Your task to perform on an android device: set default search engine in the chrome app Image 0: 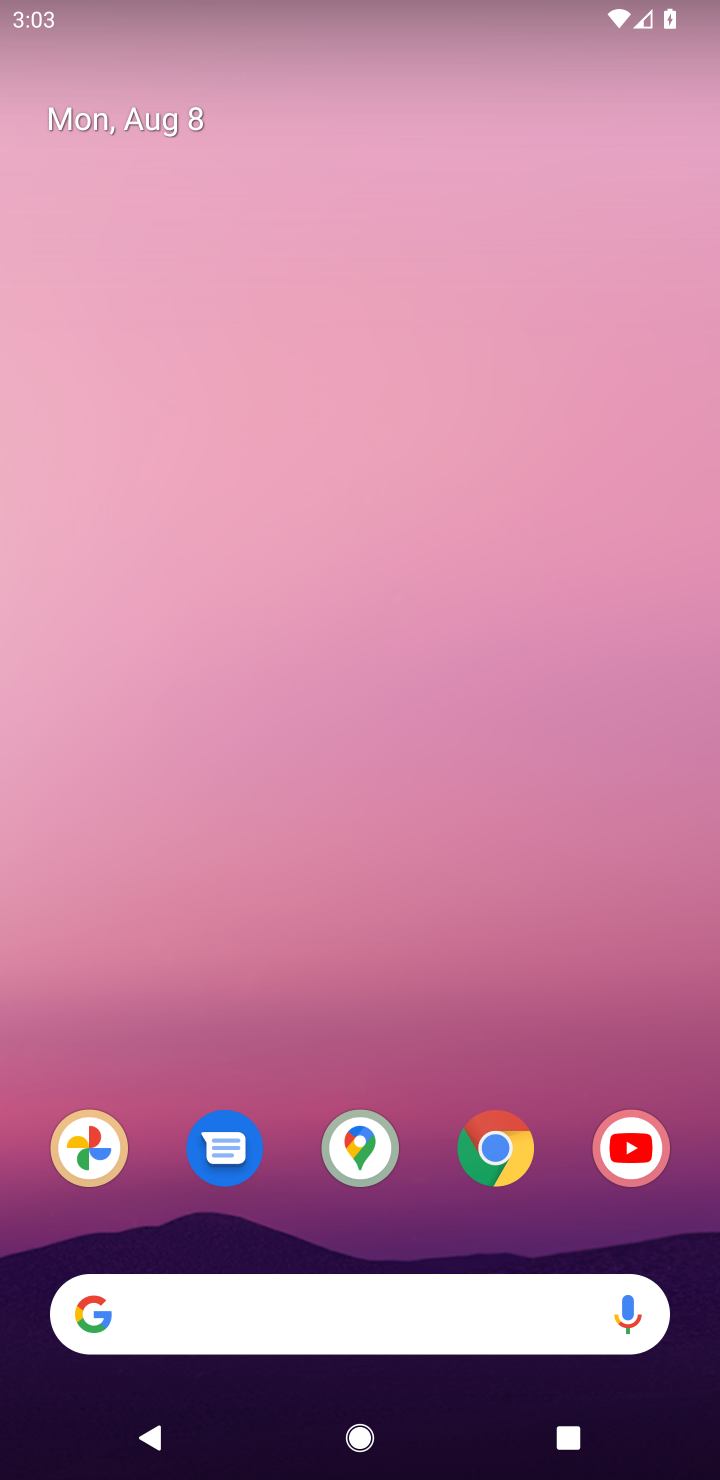
Step 0: click (519, 1154)
Your task to perform on an android device: set default search engine in the chrome app Image 1: 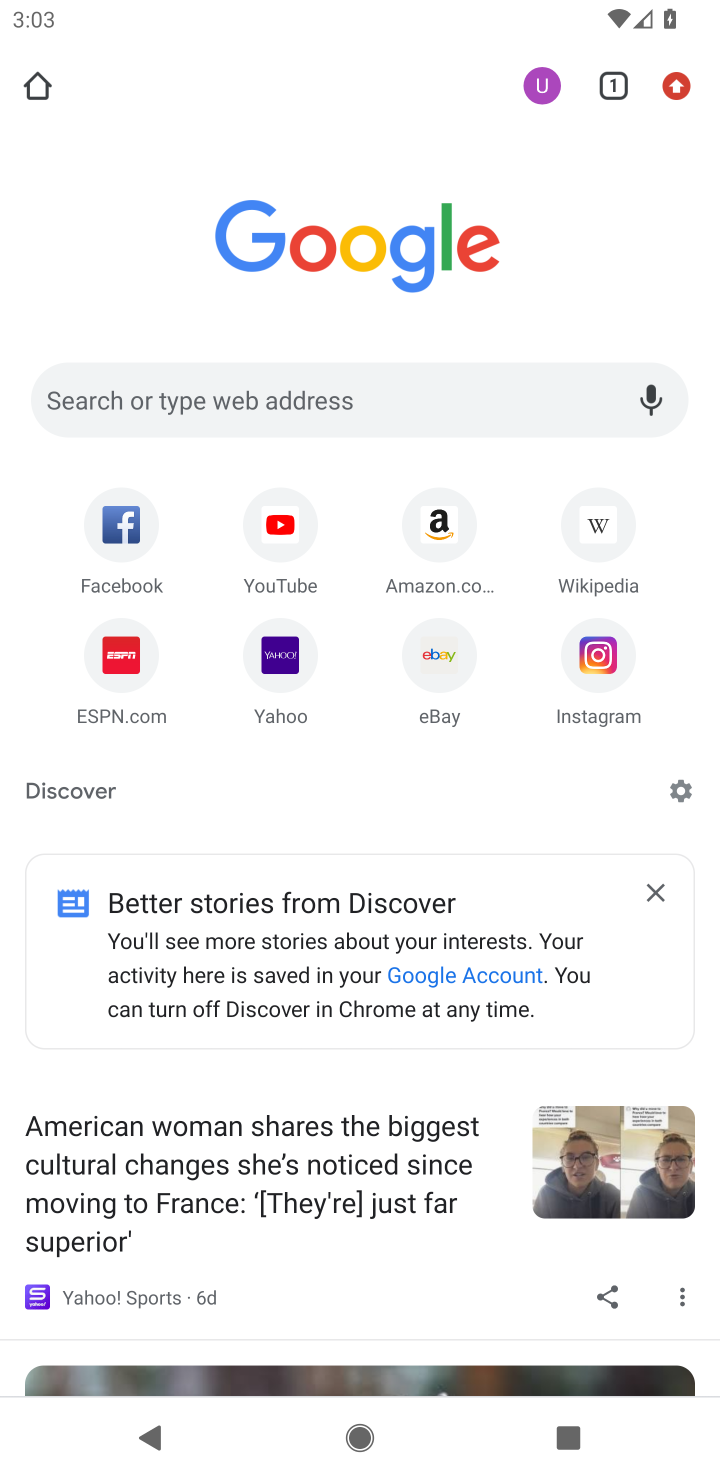
Step 1: click (676, 82)
Your task to perform on an android device: set default search engine in the chrome app Image 2: 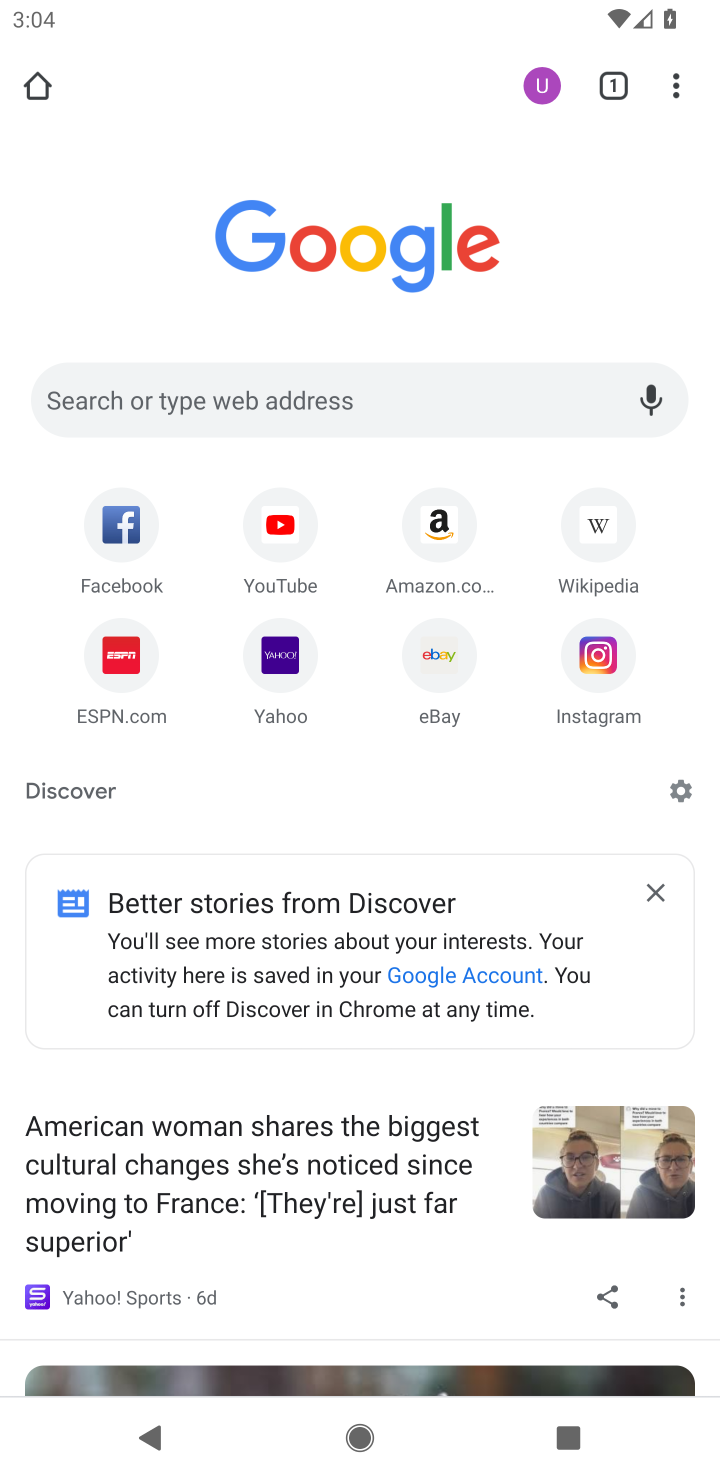
Step 2: click (676, 82)
Your task to perform on an android device: set default search engine in the chrome app Image 3: 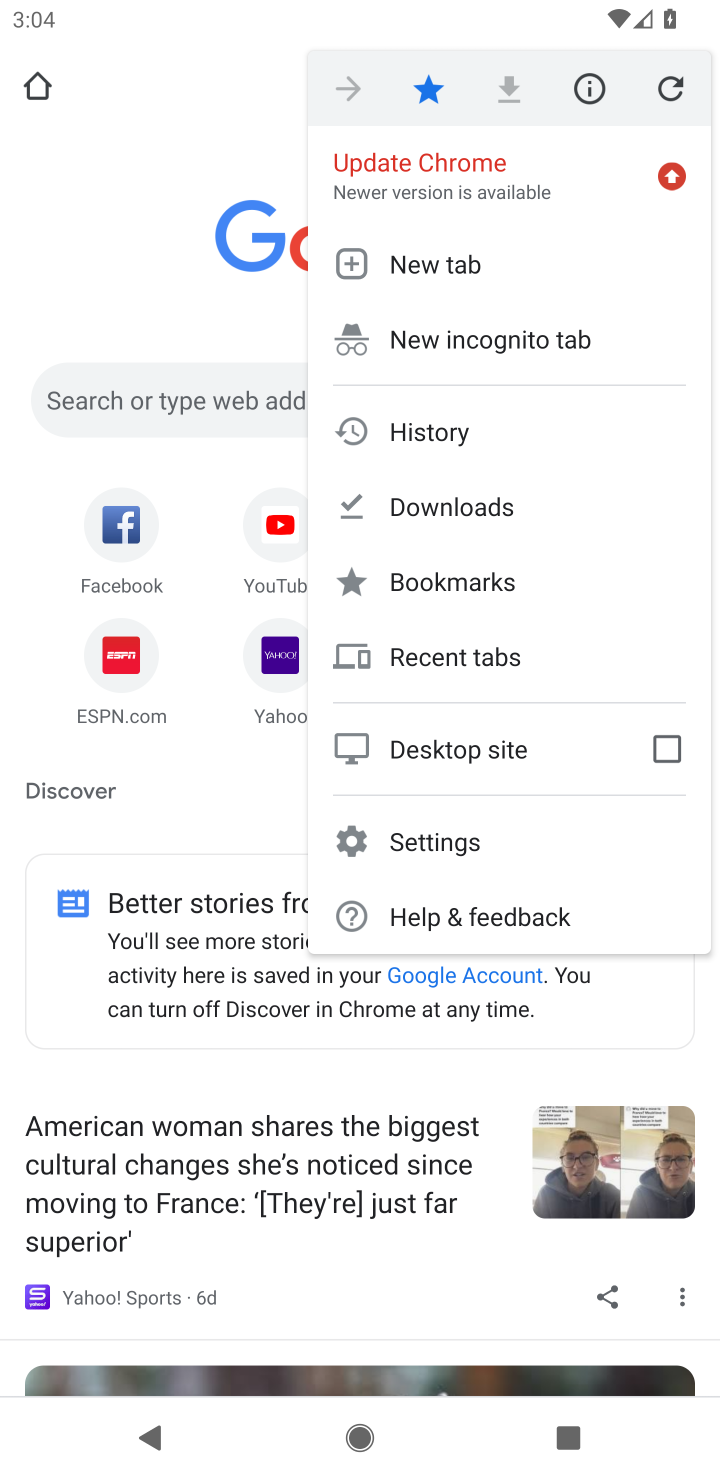
Step 3: click (490, 832)
Your task to perform on an android device: set default search engine in the chrome app Image 4: 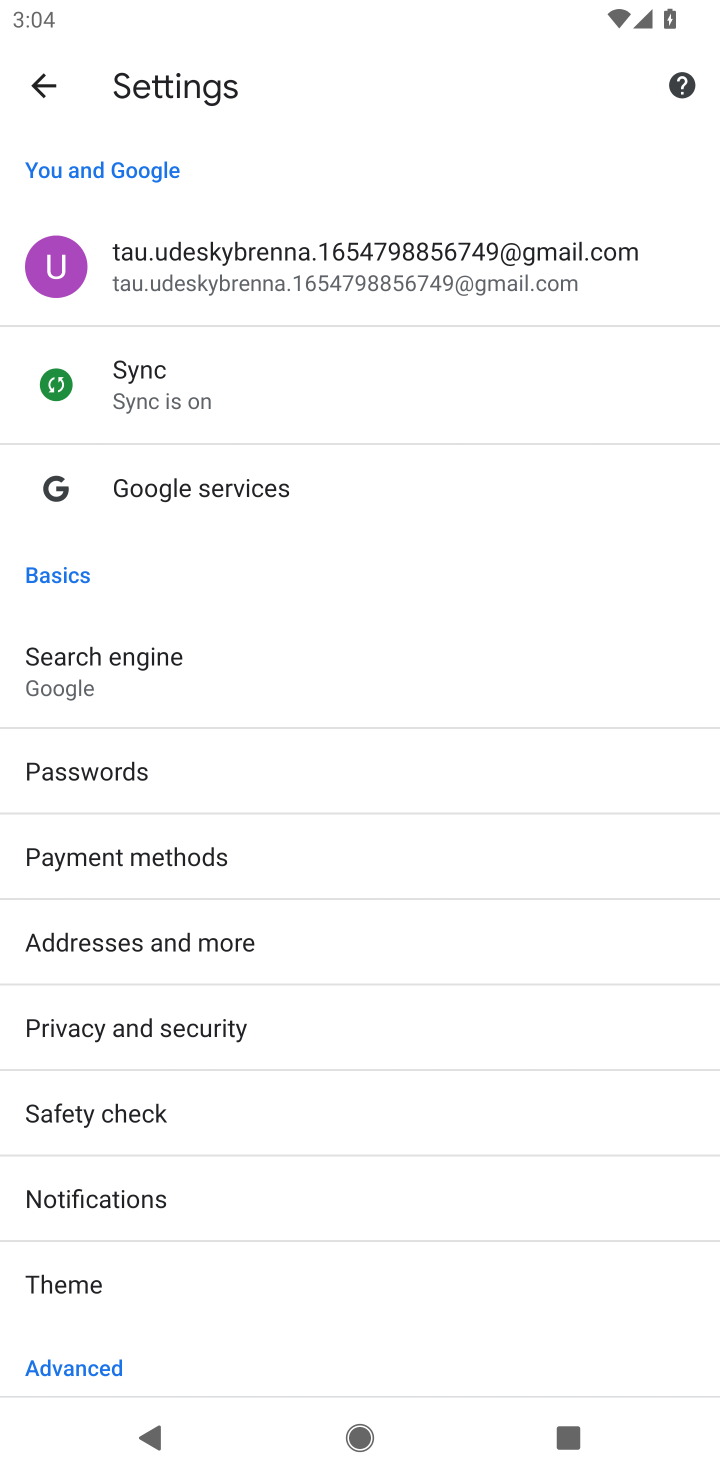
Step 4: click (127, 673)
Your task to perform on an android device: set default search engine in the chrome app Image 5: 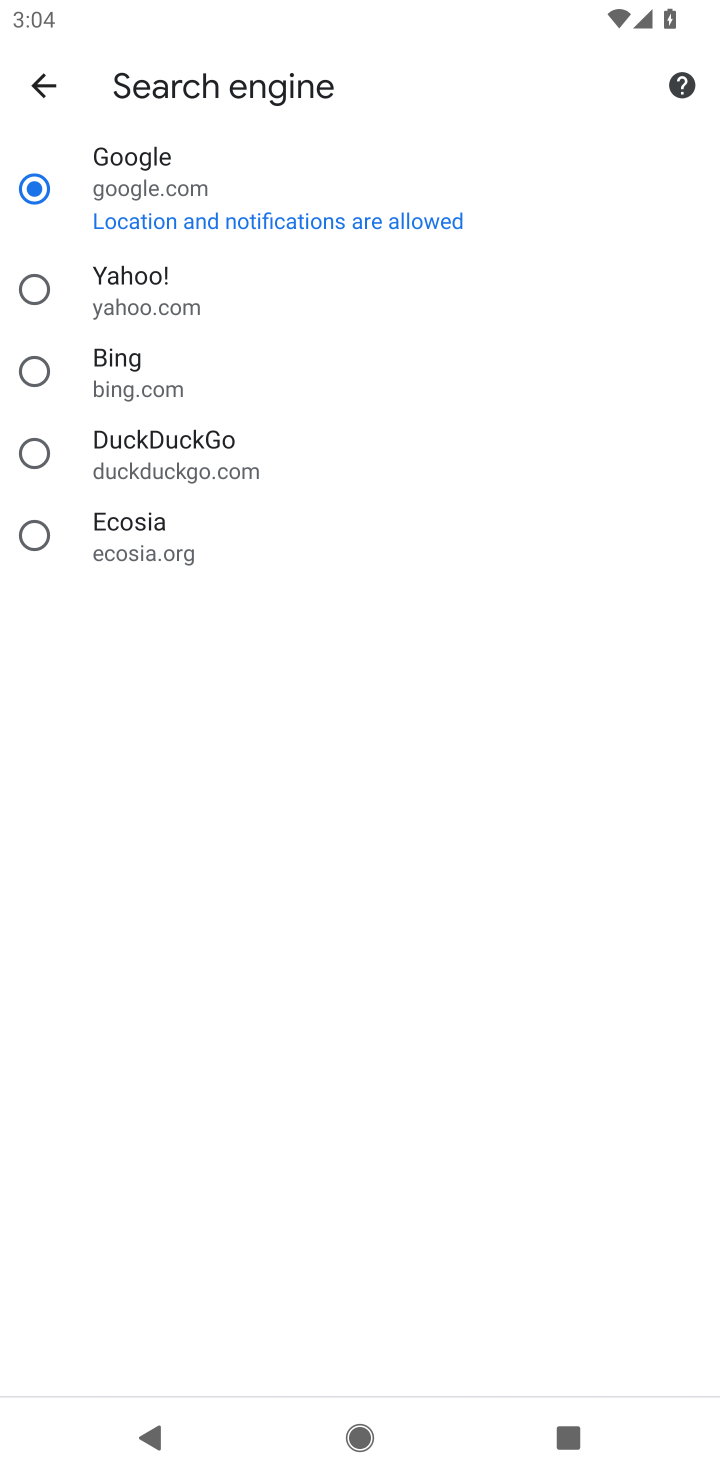
Step 5: click (119, 268)
Your task to perform on an android device: set default search engine in the chrome app Image 6: 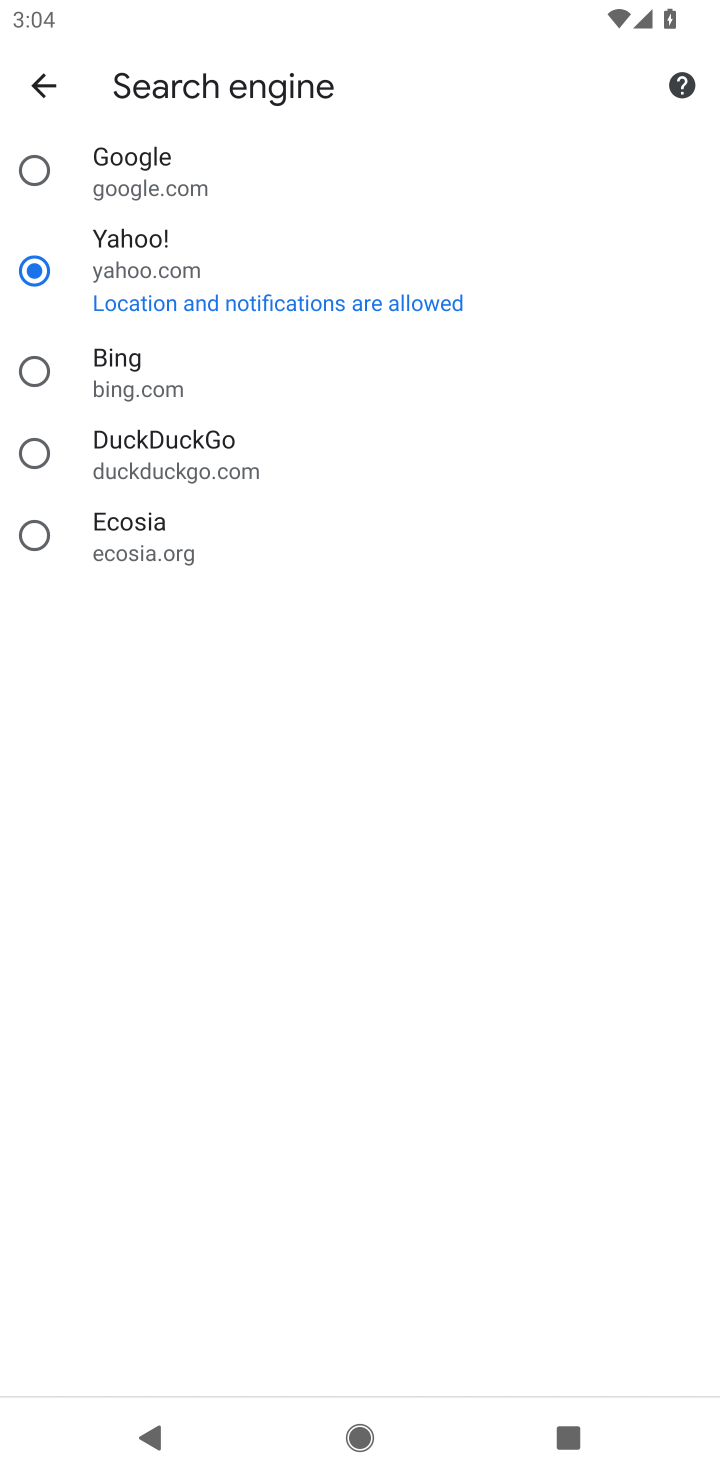
Step 6: task complete